Your task to perform on an android device: Go to settings Image 0: 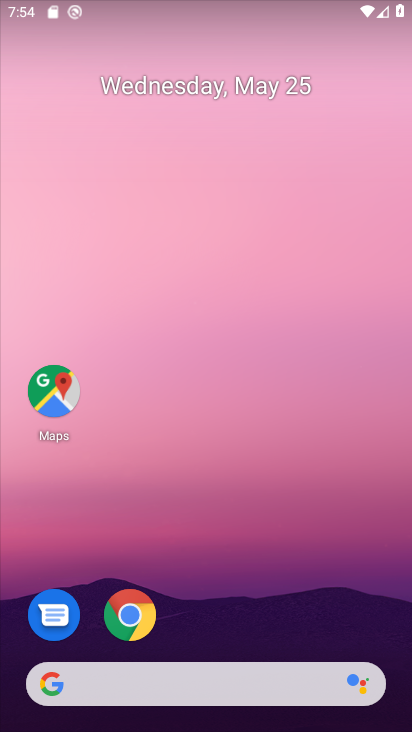
Step 0: drag from (224, 507) to (248, 8)
Your task to perform on an android device: Go to settings Image 1: 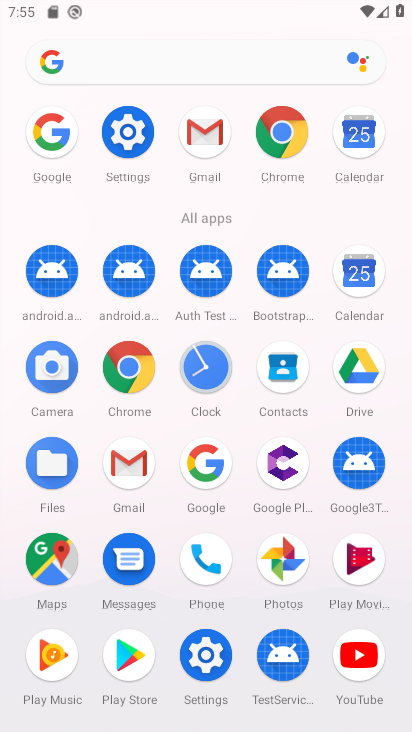
Step 1: drag from (16, 558) to (24, 242)
Your task to perform on an android device: Go to settings Image 2: 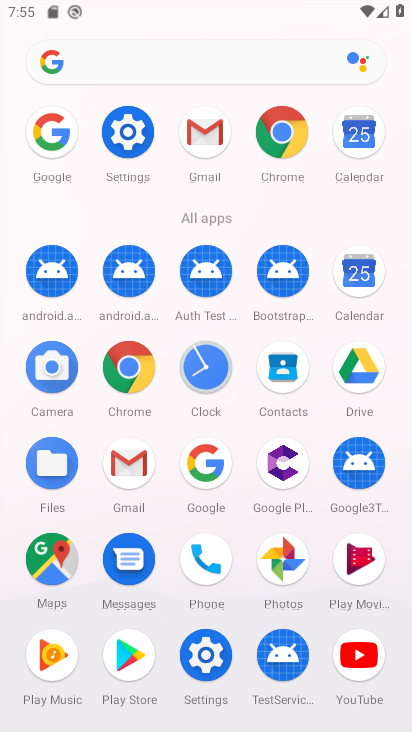
Step 2: click (202, 650)
Your task to perform on an android device: Go to settings Image 3: 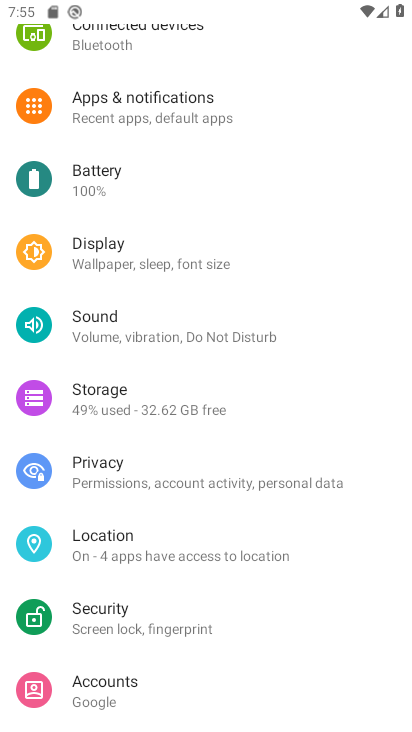
Step 3: task complete